Your task to perform on an android device: Toggle the flashlight Image 0: 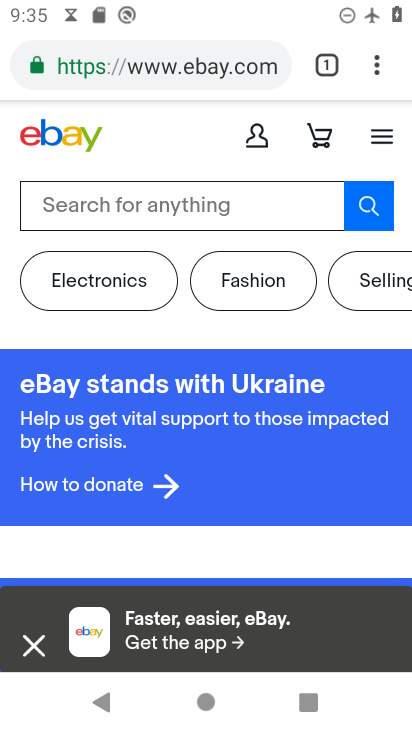
Step 0: press home button
Your task to perform on an android device: Toggle the flashlight Image 1: 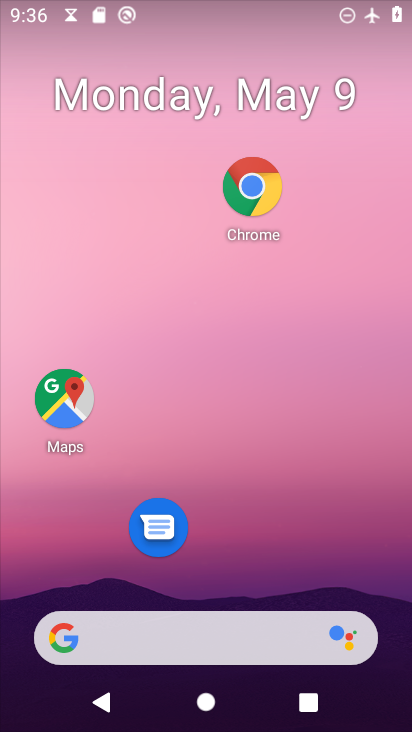
Step 1: drag from (213, 585) to (258, 3)
Your task to perform on an android device: Toggle the flashlight Image 2: 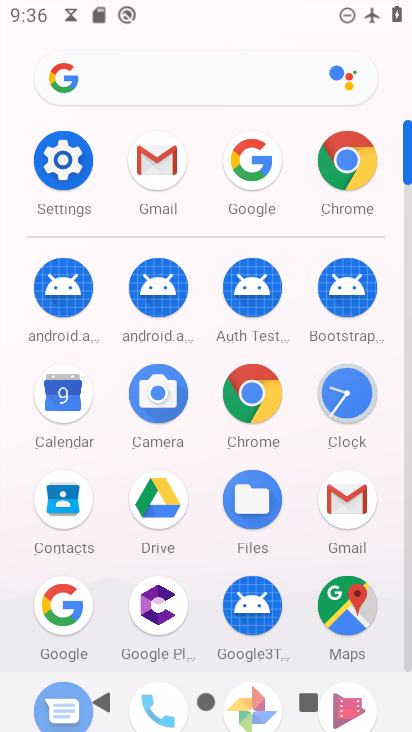
Step 2: click (67, 152)
Your task to perform on an android device: Toggle the flashlight Image 3: 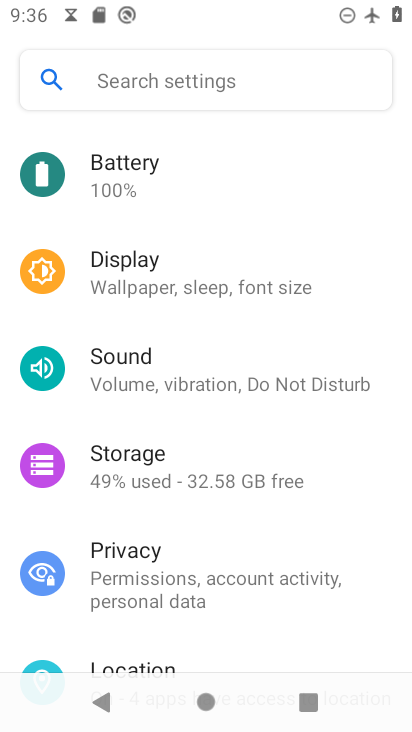
Step 3: click (166, 69)
Your task to perform on an android device: Toggle the flashlight Image 4: 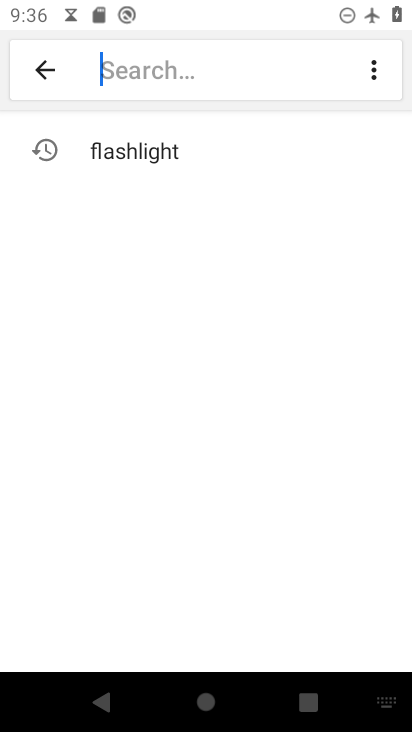
Step 4: click (172, 148)
Your task to perform on an android device: Toggle the flashlight Image 5: 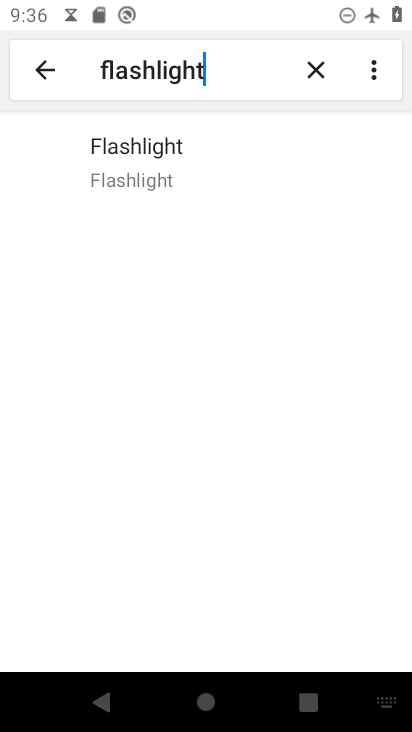
Step 5: click (173, 161)
Your task to perform on an android device: Toggle the flashlight Image 6: 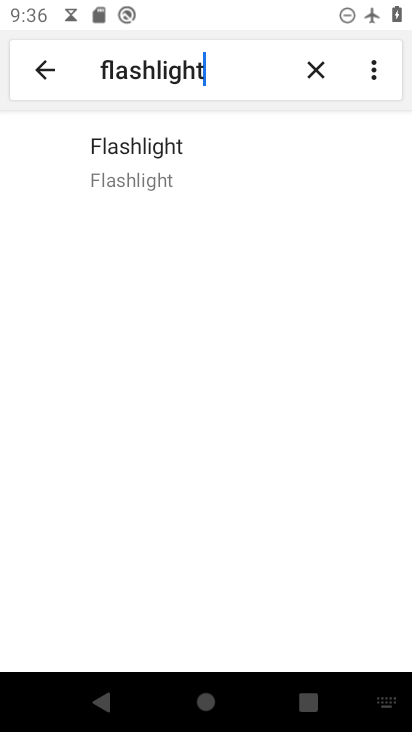
Step 6: task complete